Your task to perform on an android device: Open Google Chrome and click the shortcut for Amazon.com Image 0: 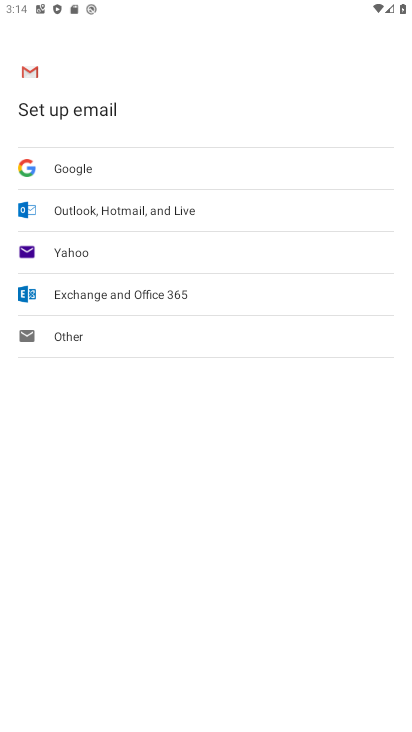
Step 0: press home button
Your task to perform on an android device: Open Google Chrome and click the shortcut for Amazon.com Image 1: 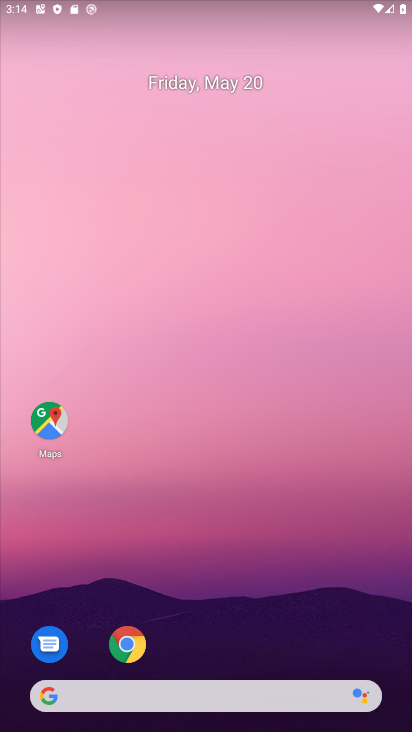
Step 1: click (119, 644)
Your task to perform on an android device: Open Google Chrome and click the shortcut for Amazon.com Image 2: 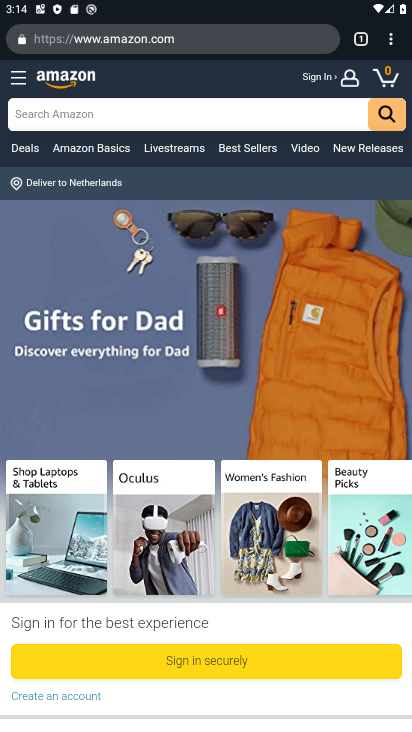
Step 2: task complete